Your task to perform on an android device: open app "Microsoft Authenticator" (install if not already installed), go to login, and select forgot password Image 0: 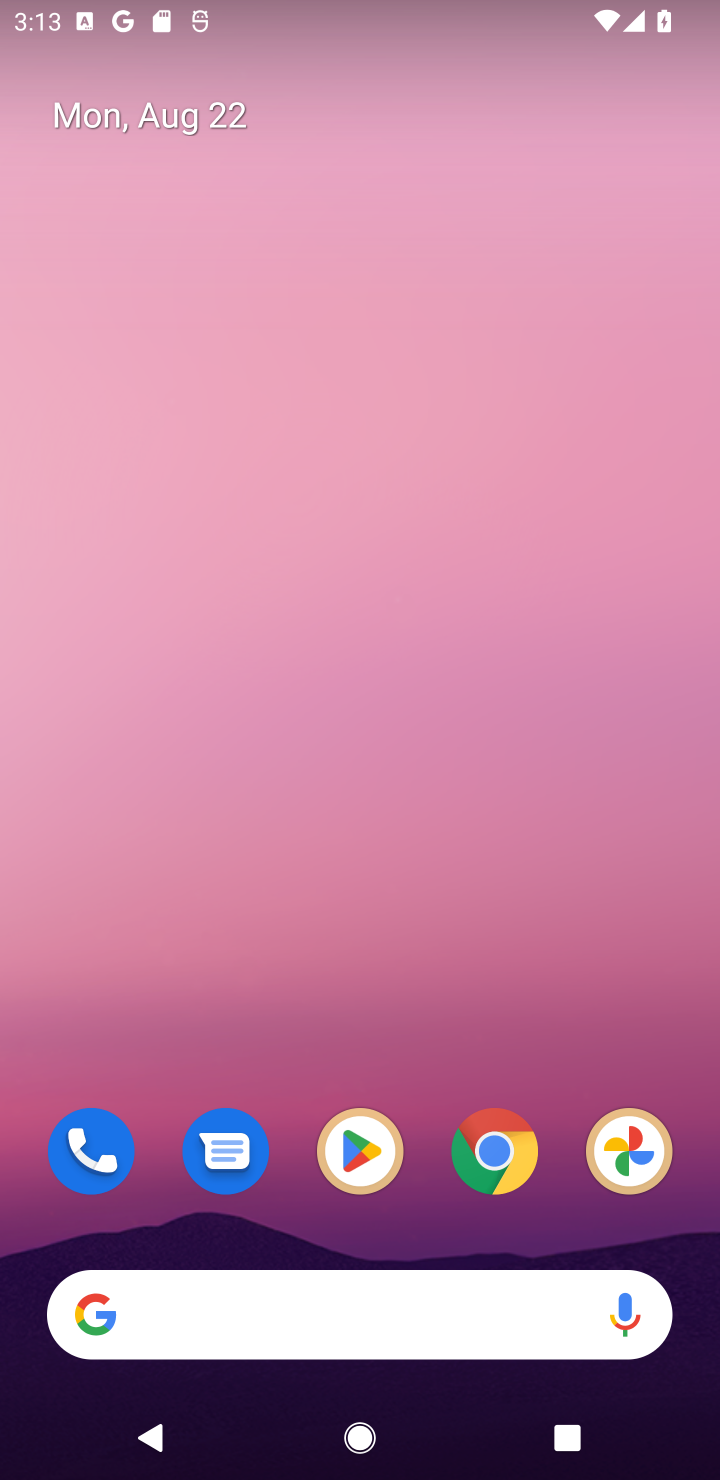
Step 0: press home button
Your task to perform on an android device: open app "Microsoft Authenticator" (install if not already installed), go to login, and select forgot password Image 1: 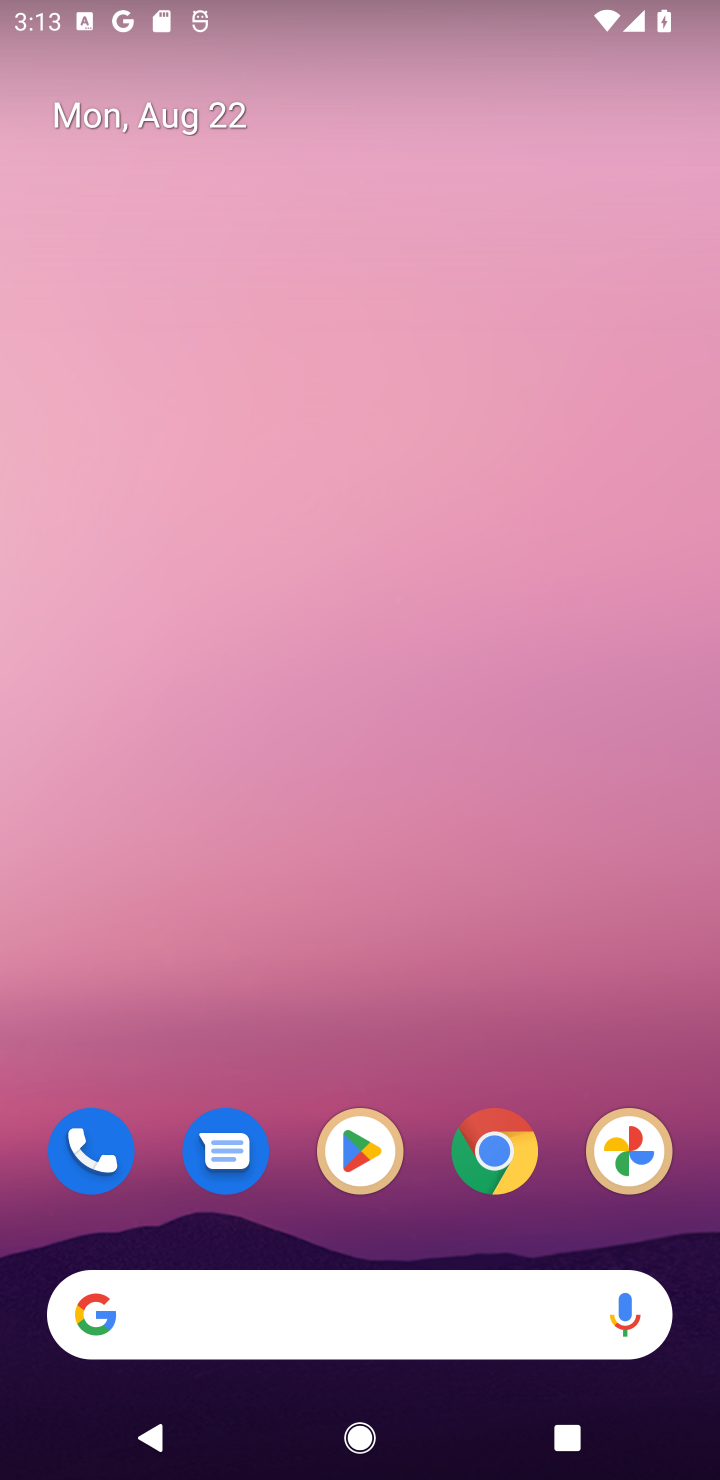
Step 1: click (349, 1137)
Your task to perform on an android device: open app "Microsoft Authenticator" (install if not already installed), go to login, and select forgot password Image 2: 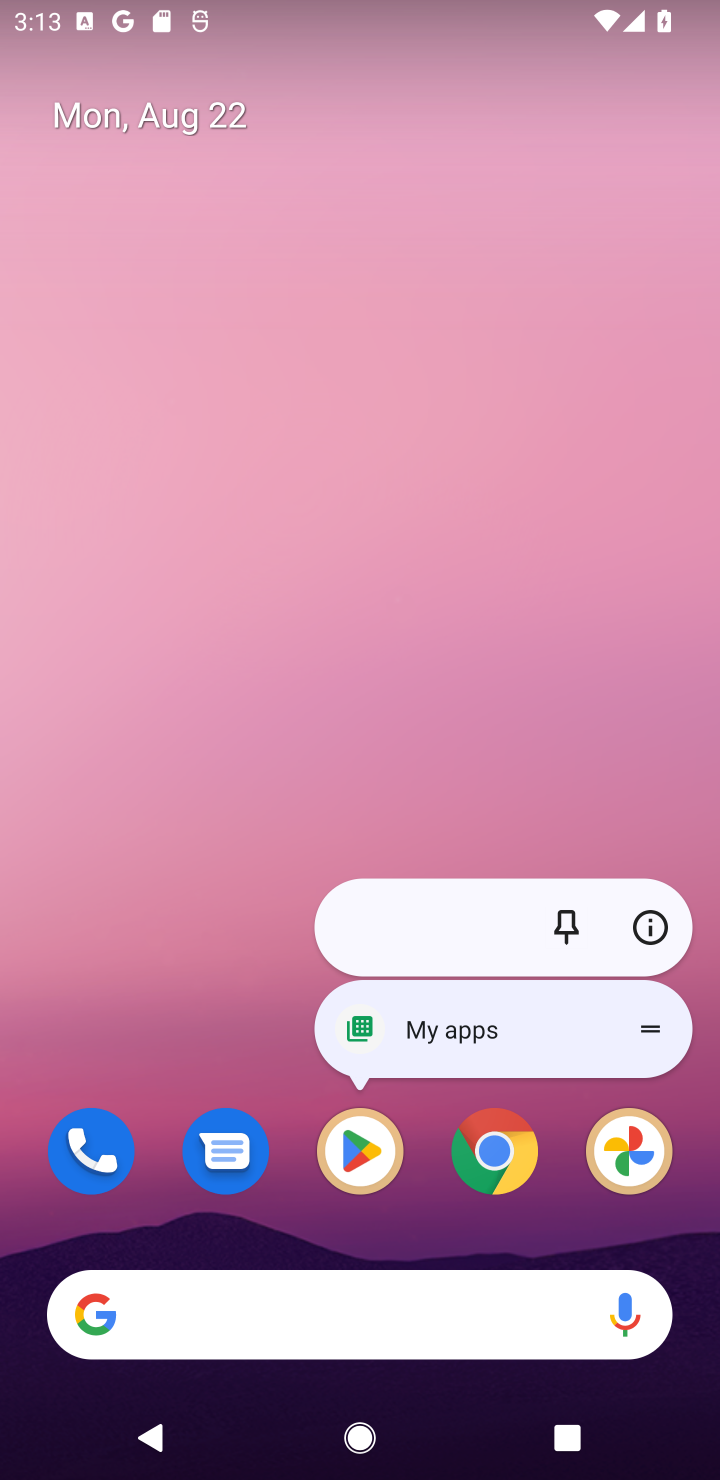
Step 2: click (351, 1139)
Your task to perform on an android device: open app "Microsoft Authenticator" (install if not already installed), go to login, and select forgot password Image 3: 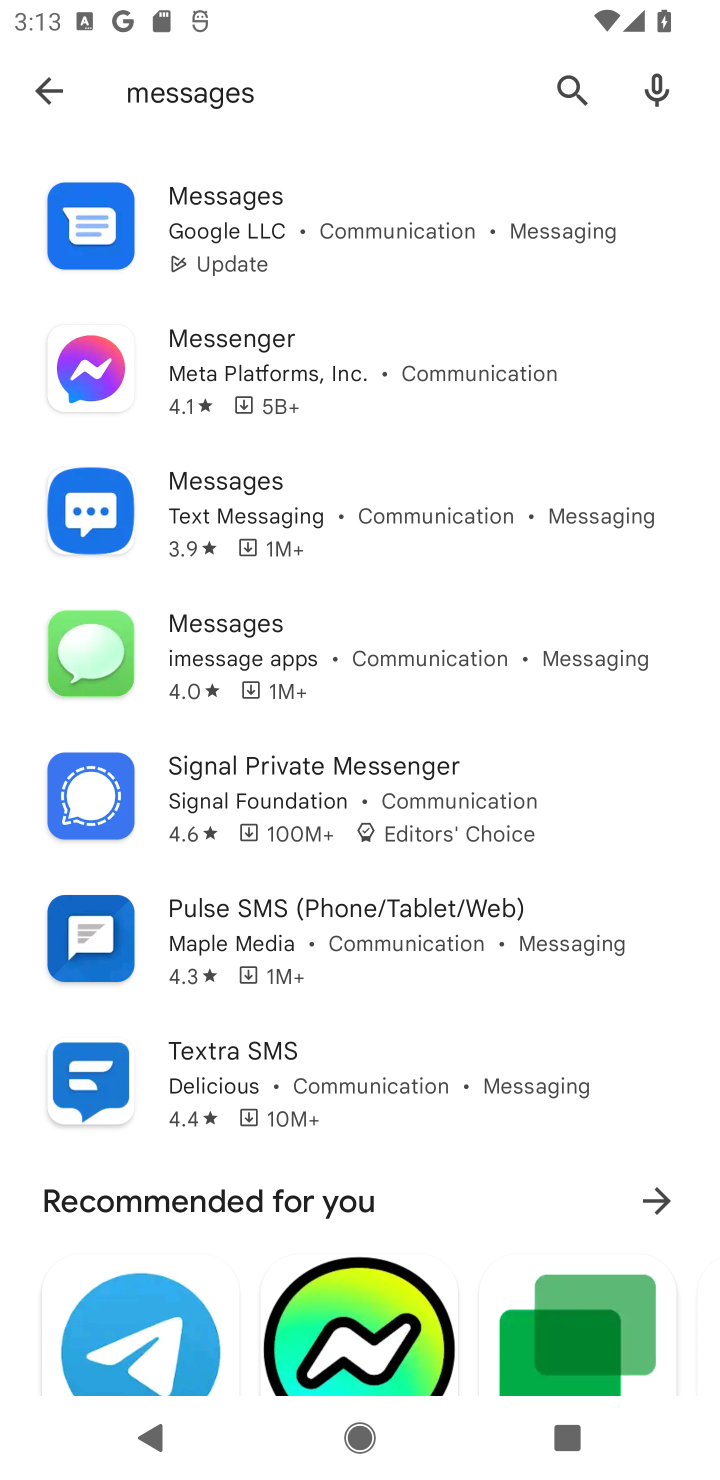
Step 3: click (562, 83)
Your task to perform on an android device: open app "Microsoft Authenticator" (install if not already installed), go to login, and select forgot password Image 4: 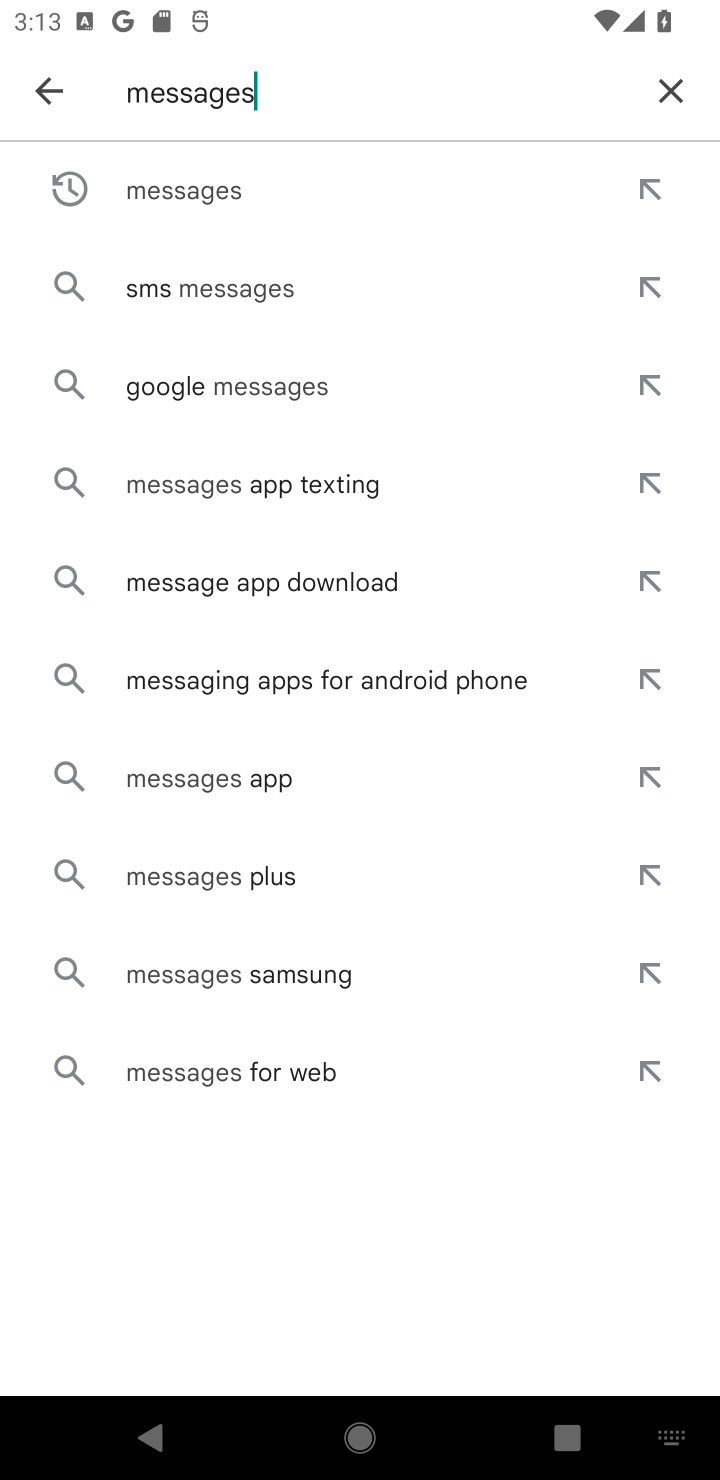
Step 4: click (678, 75)
Your task to perform on an android device: open app "Microsoft Authenticator" (install if not already installed), go to login, and select forgot password Image 5: 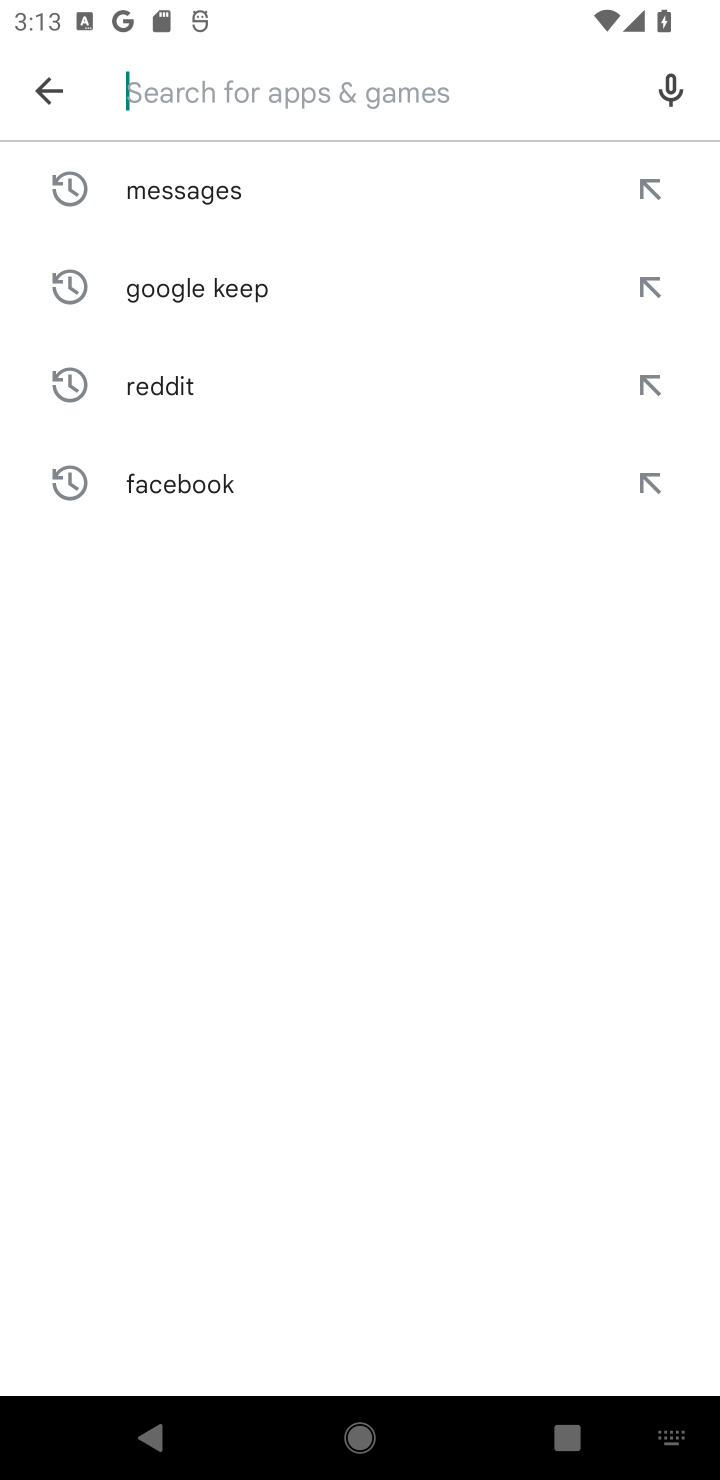
Step 5: type "Microsoft Authenticator"
Your task to perform on an android device: open app "Microsoft Authenticator" (install if not already installed), go to login, and select forgot password Image 6: 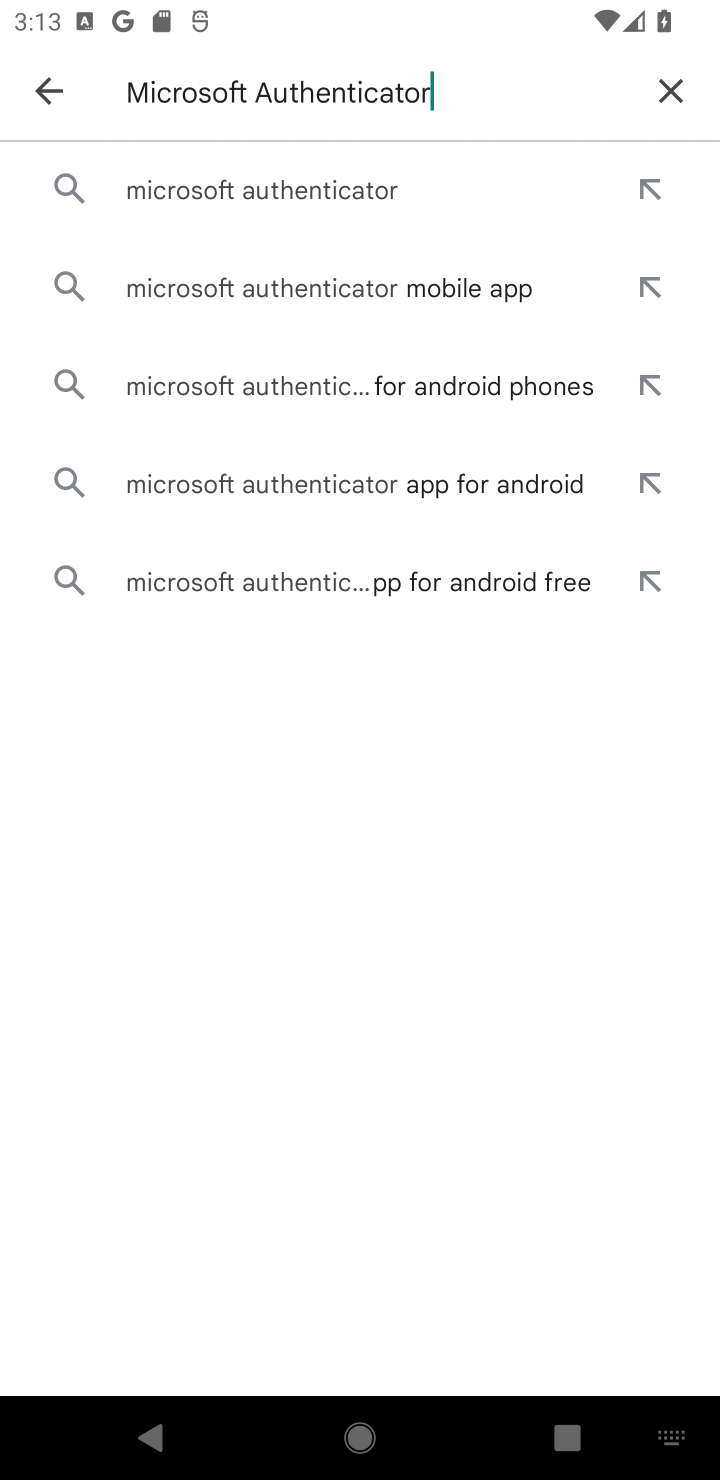
Step 6: click (144, 188)
Your task to perform on an android device: open app "Microsoft Authenticator" (install if not already installed), go to login, and select forgot password Image 7: 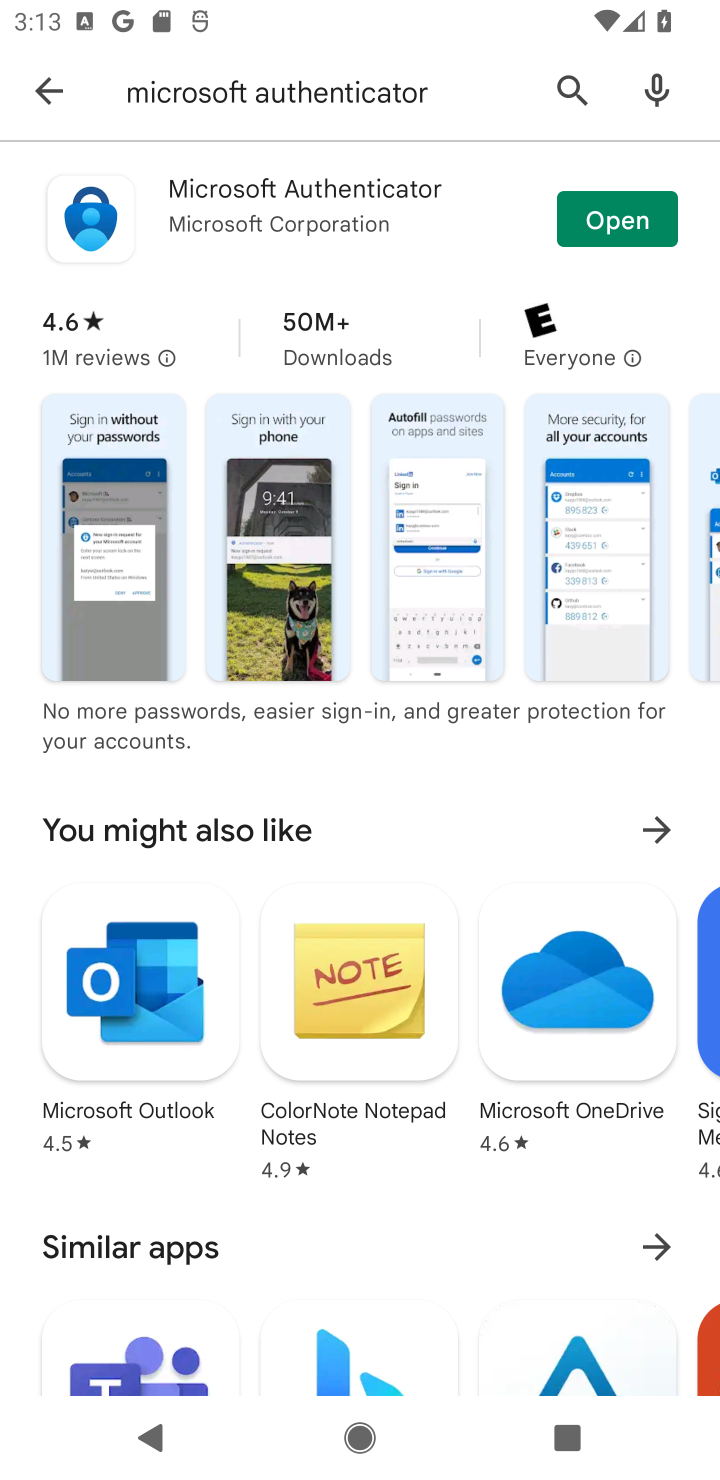
Step 7: click (618, 225)
Your task to perform on an android device: open app "Microsoft Authenticator" (install if not already installed), go to login, and select forgot password Image 8: 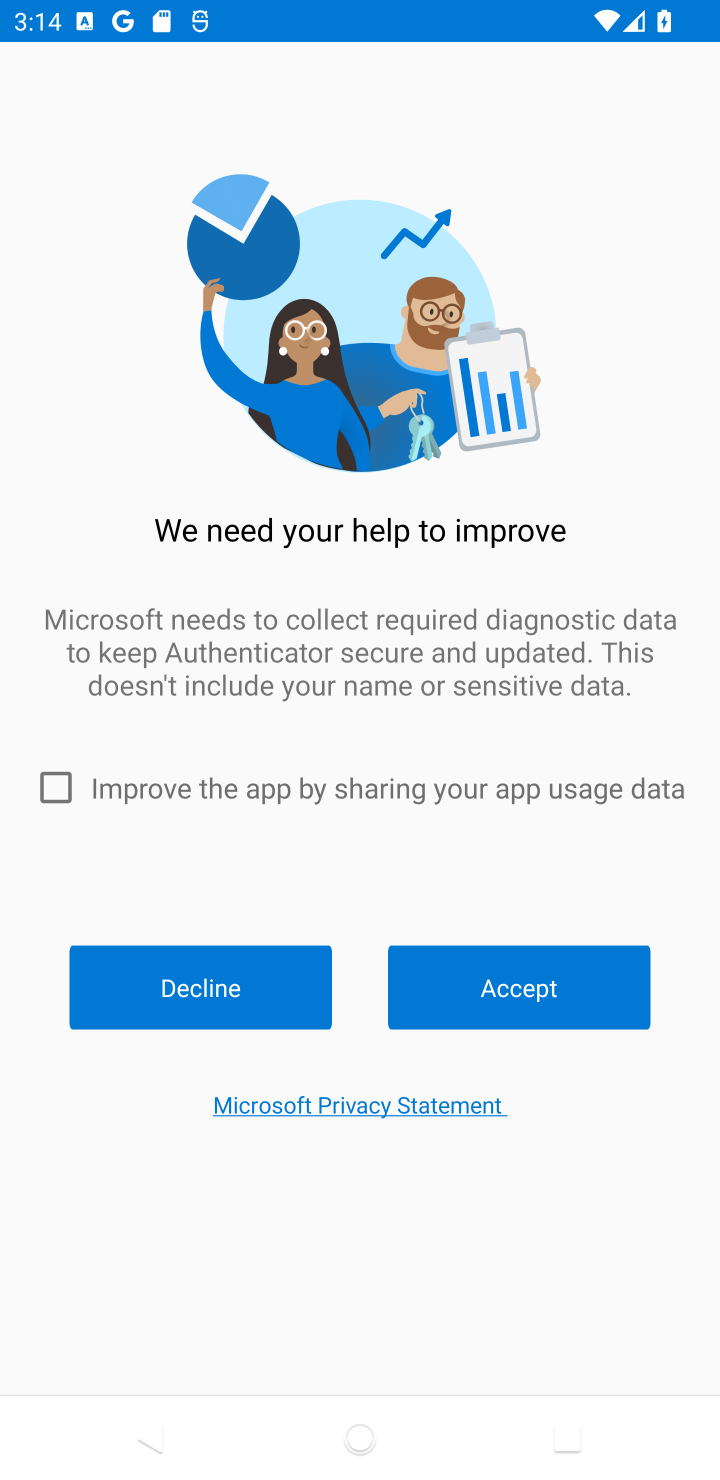
Step 8: click (573, 973)
Your task to perform on an android device: open app "Microsoft Authenticator" (install if not already installed), go to login, and select forgot password Image 9: 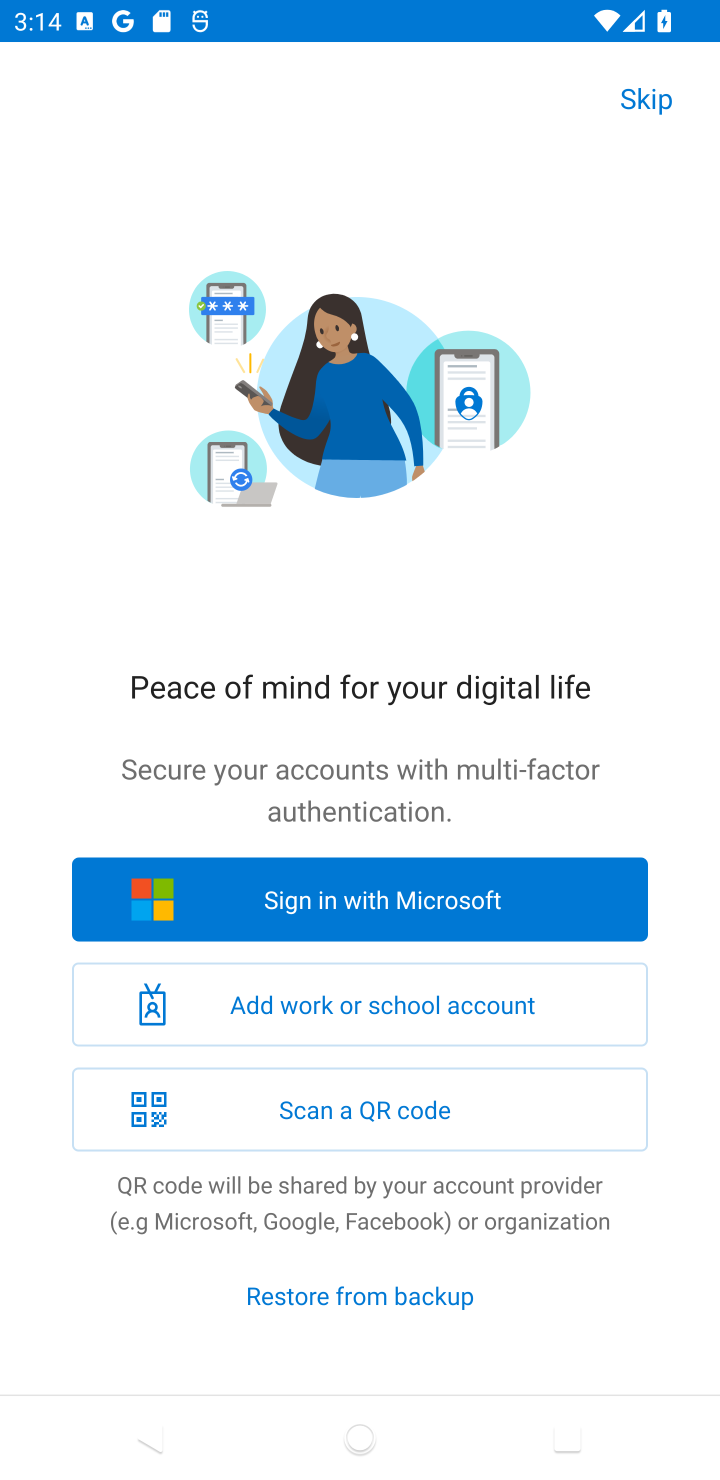
Step 9: click (657, 84)
Your task to perform on an android device: open app "Microsoft Authenticator" (install if not already installed), go to login, and select forgot password Image 10: 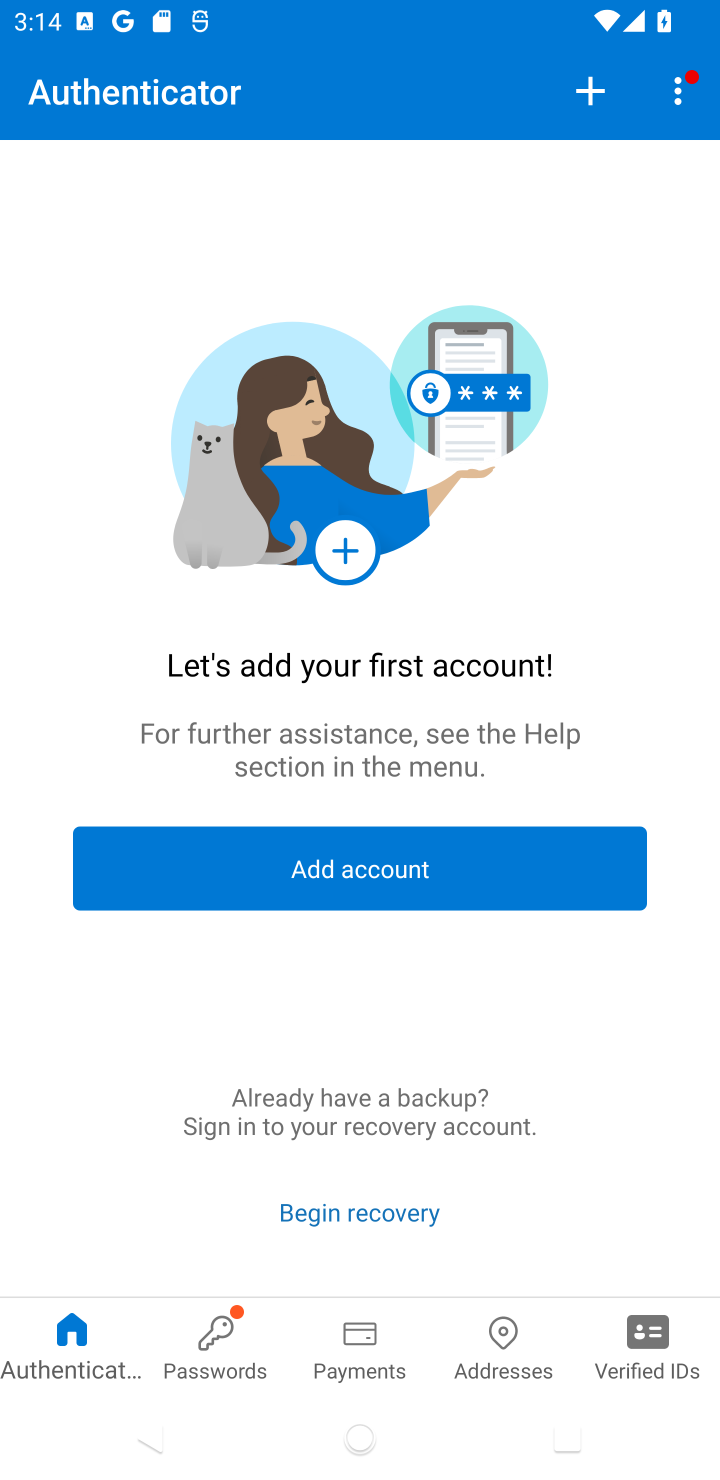
Step 10: task complete